Your task to perform on an android device: Open the web browser Image 0: 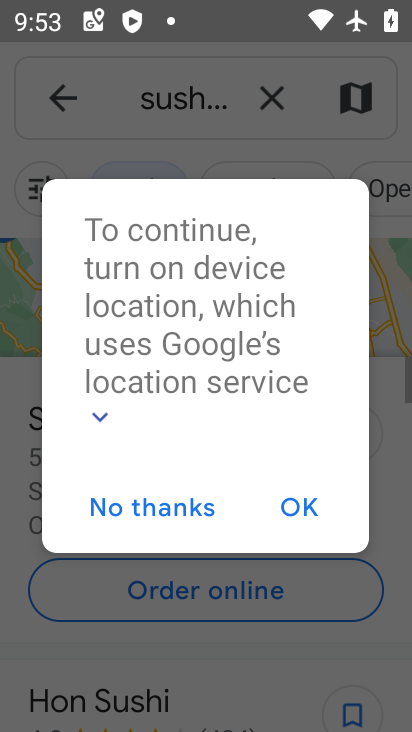
Step 0: press home button
Your task to perform on an android device: Open the web browser Image 1: 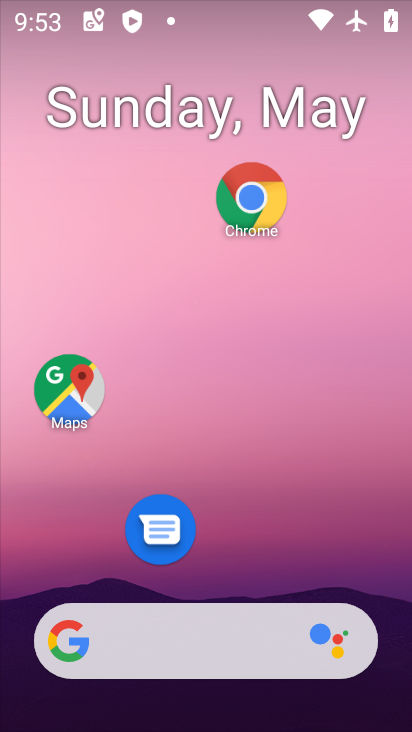
Step 1: click (245, 191)
Your task to perform on an android device: Open the web browser Image 2: 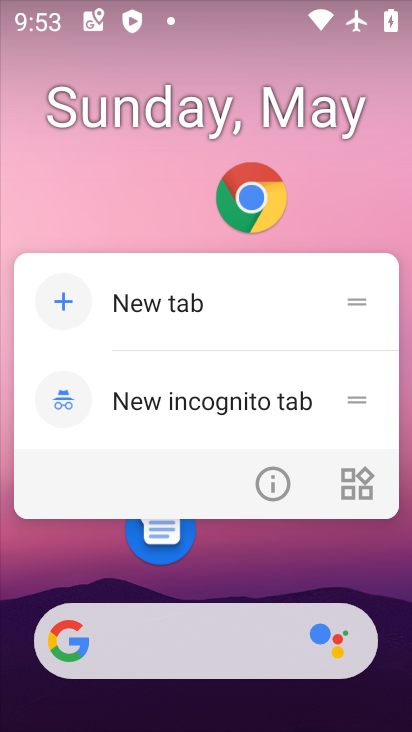
Step 2: click (245, 191)
Your task to perform on an android device: Open the web browser Image 3: 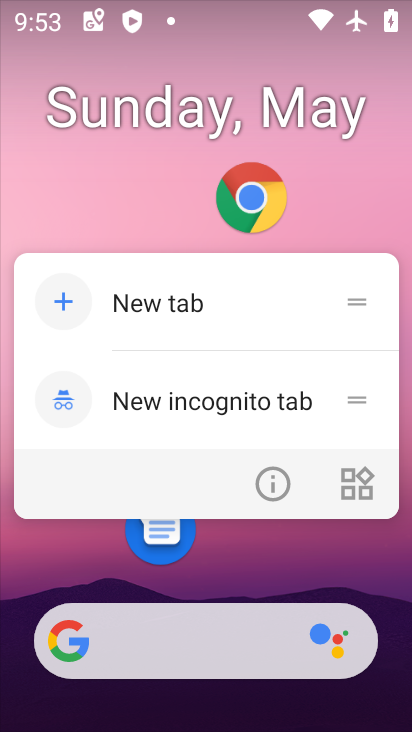
Step 3: click (245, 191)
Your task to perform on an android device: Open the web browser Image 4: 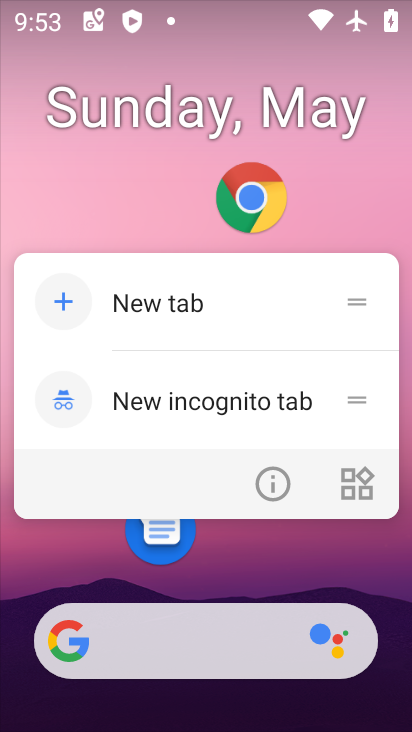
Step 4: click (245, 191)
Your task to perform on an android device: Open the web browser Image 5: 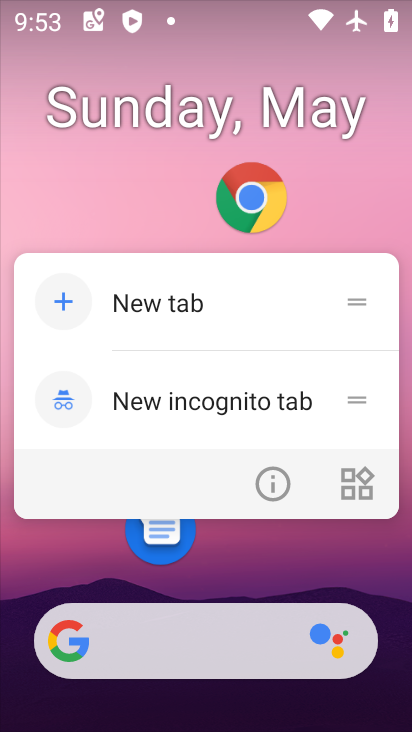
Step 5: click (245, 191)
Your task to perform on an android device: Open the web browser Image 6: 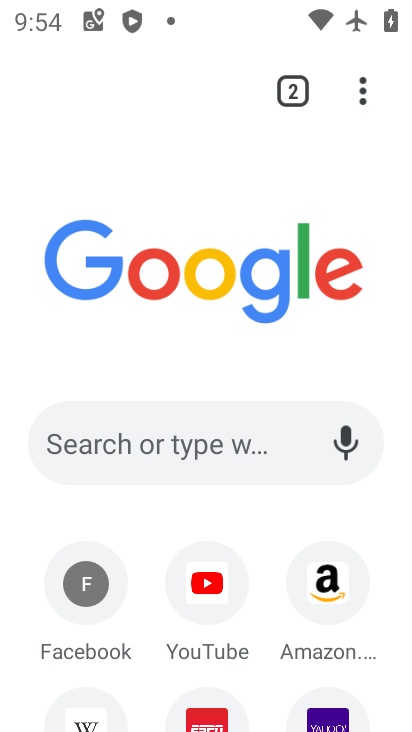
Step 6: task complete